Your task to perform on an android device: Play the last video I watched on Youtube Image 0: 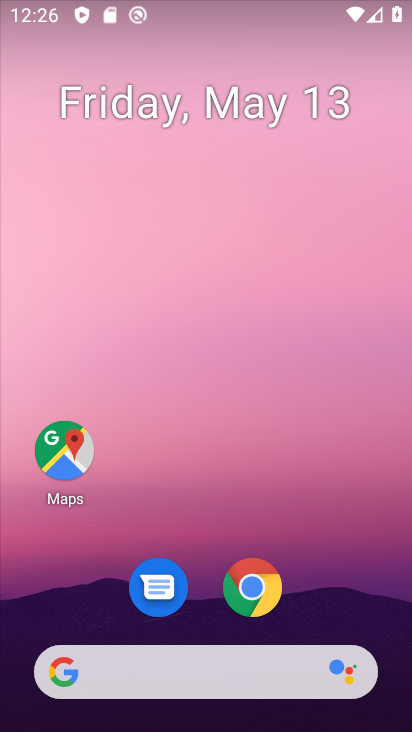
Step 0: drag from (235, 624) to (287, 55)
Your task to perform on an android device: Play the last video I watched on Youtube Image 1: 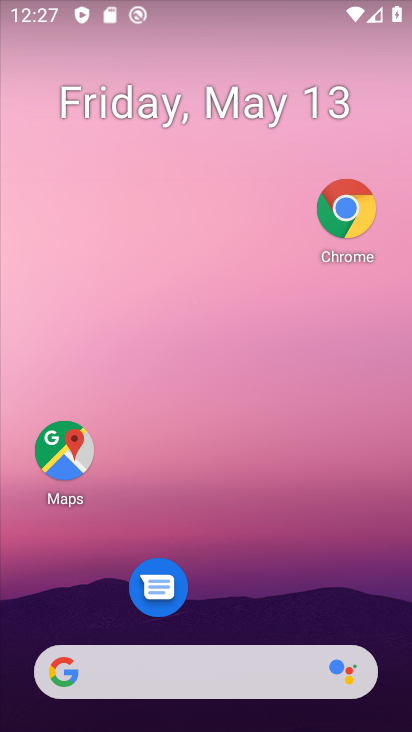
Step 1: drag from (220, 611) to (282, 126)
Your task to perform on an android device: Play the last video I watched on Youtube Image 2: 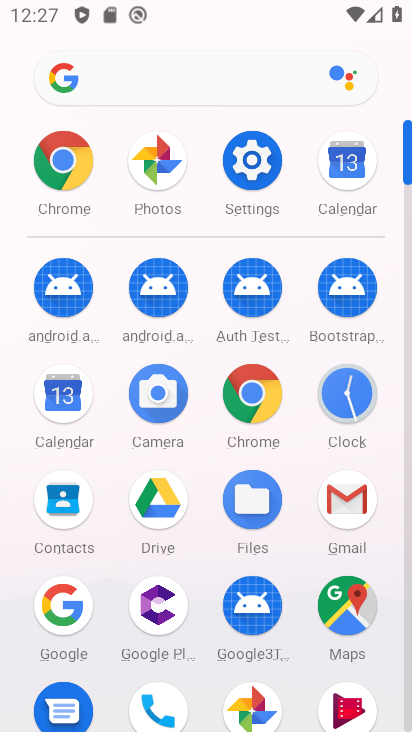
Step 2: drag from (187, 630) to (328, 117)
Your task to perform on an android device: Play the last video I watched on Youtube Image 3: 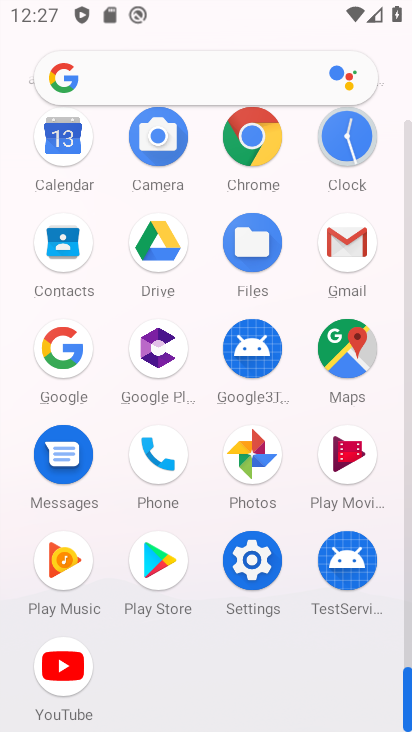
Step 3: click (58, 661)
Your task to perform on an android device: Play the last video I watched on Youtube Image 4: 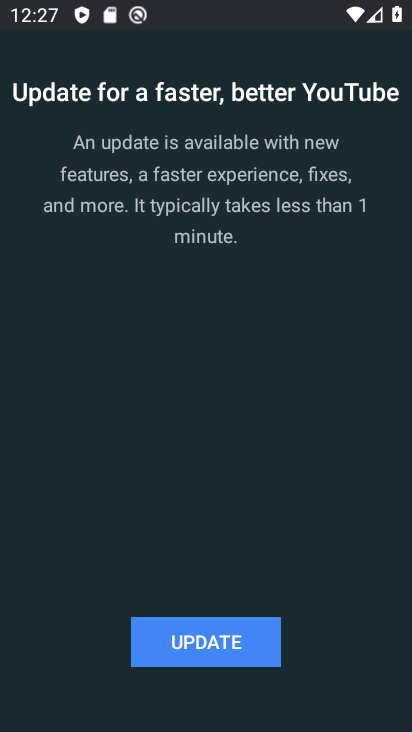
Step 4: click (202, 647)
Your task to perform on an android device: Play the last video I watched on Youtube Image 5: 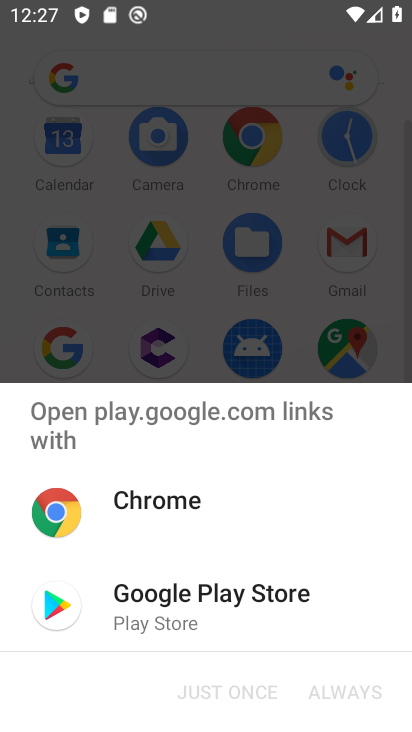
Step 5: click (156, 606)
Your task to perform on an android device: Play the last video I watched on Youtube Image 6: 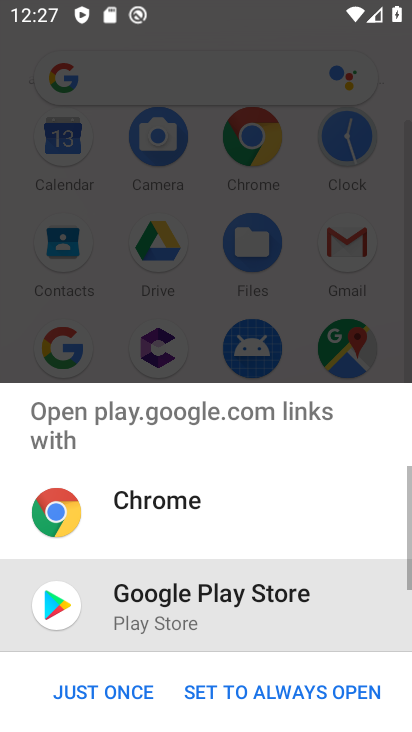
Step 6: click (108, 689)
Your task to perform on an android device: Play the last video I watched on Youtube Image 7: 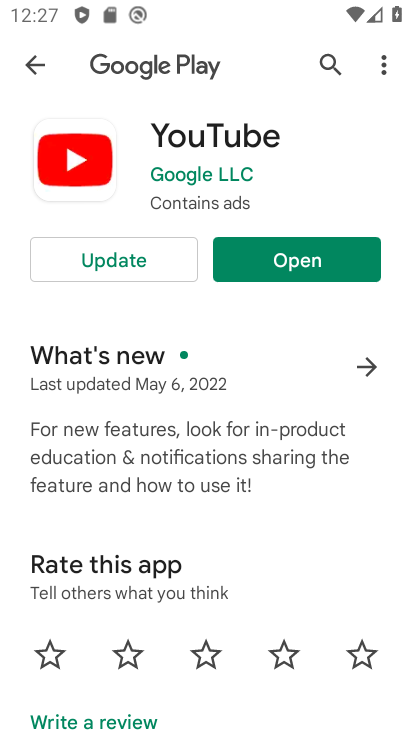
Step 7: click (288, 259)
Your task to perform on an android device: Play the last video I watched on Youtube Image 8: 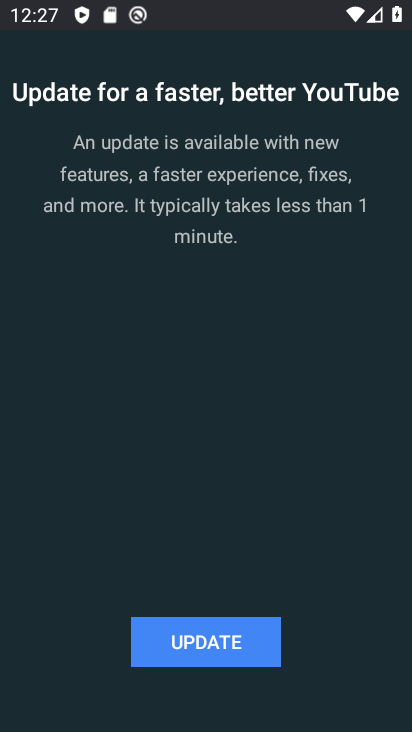
Step 8: click (221, 631)
Your task to perform on an android device: Play the last video I watched on Youtube Image 9: 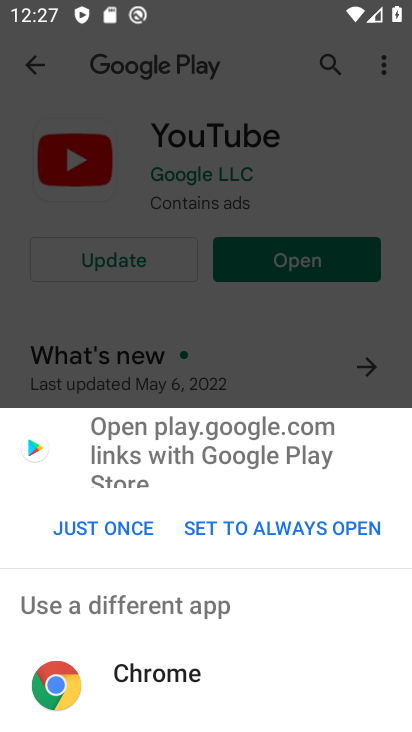
Step 9: click (89, 535)
Your task to perform on an android device: Play the last video I watched on Youtube Image 10: 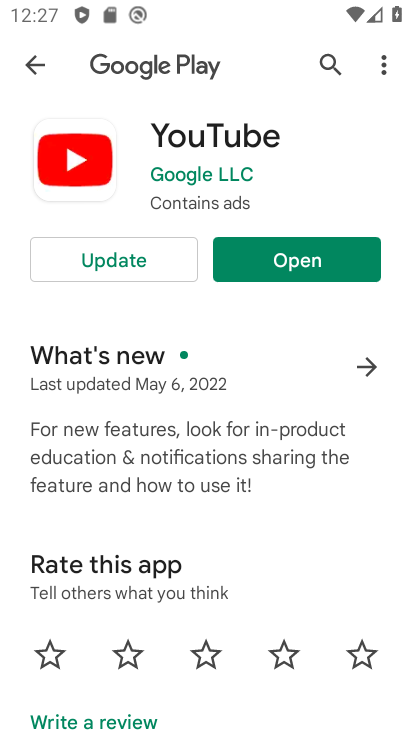
Step 10: click (119, 253)
Your task to perform on an android device: Play the last video I watched on Youtube Image 11: 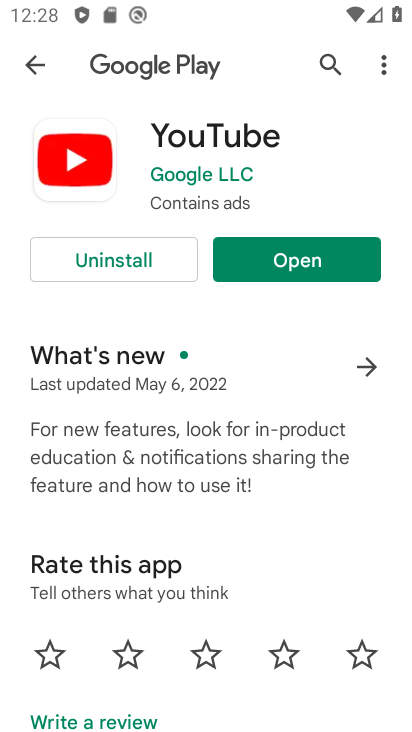
Step 11: click (301, 261)
Your task to perform on an android device: Play the last video I watched on Youtube Image 12: 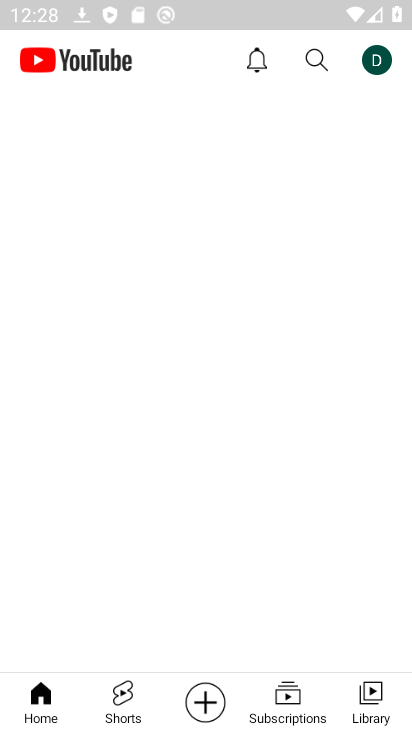
Step 12: click (366, 697)
Your task to perform on an android device: Play the last video I watched on Youtube Image 13: 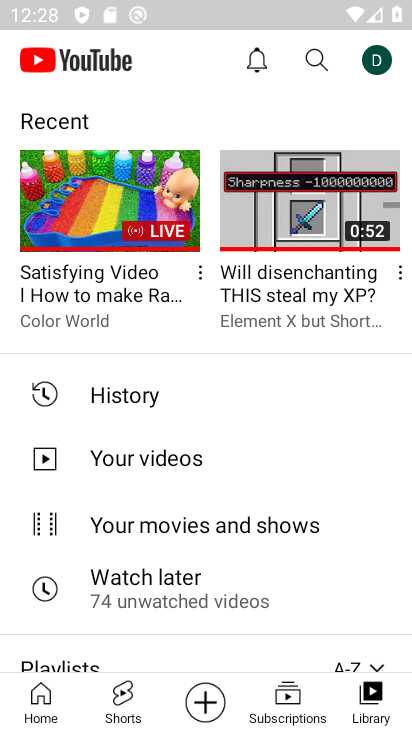
Step 13: click (97, 188)
Your task to perform on an android device: Play the last video I watched on Youtube Image 14: 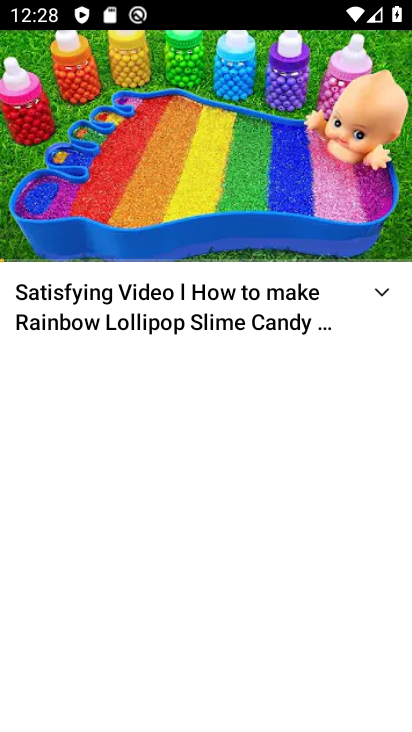
Step 14: task complete